Your task to perform on an android device: toggle notifications settings in the gmail app Image 0: 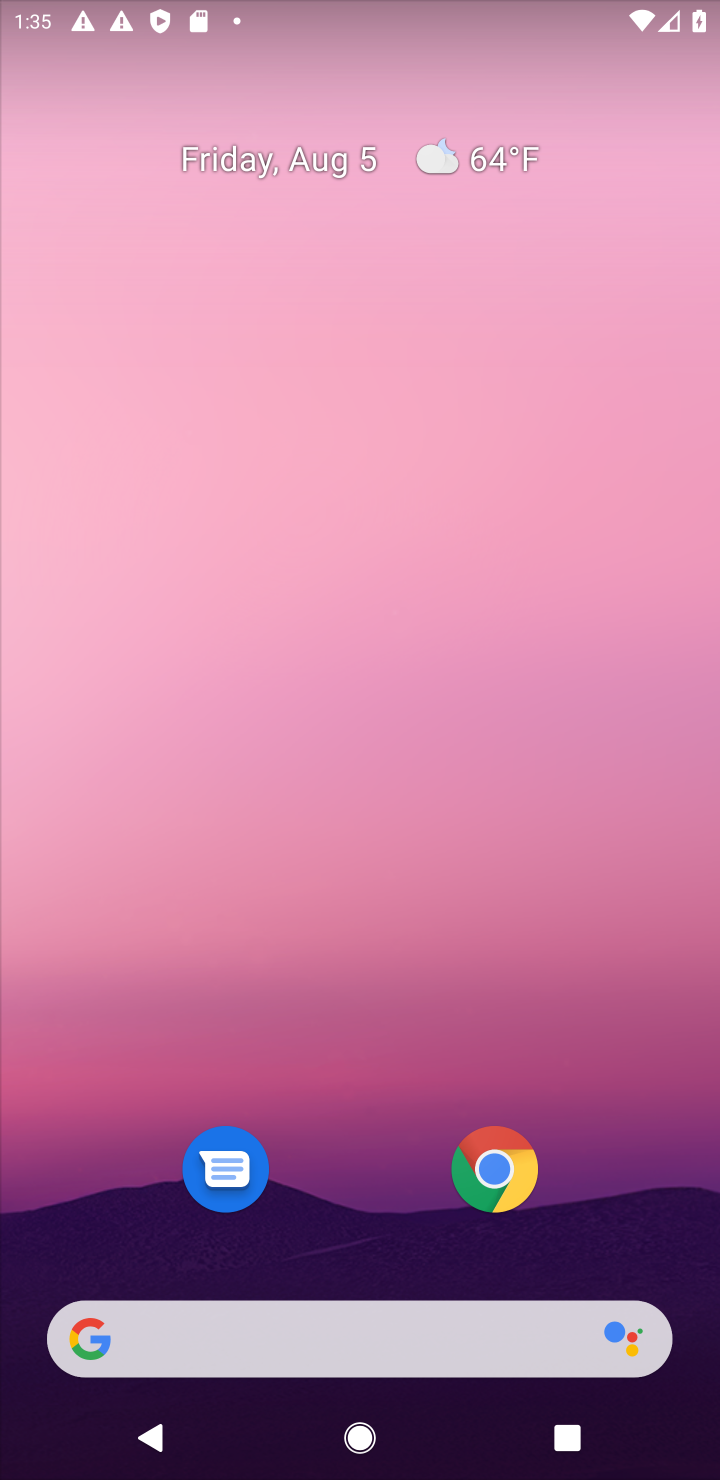
Step 0: drag from (330, 1139) to (367, 266)
Your task to perform on an android device: toggle notifications settings in the gmail app Image 1: 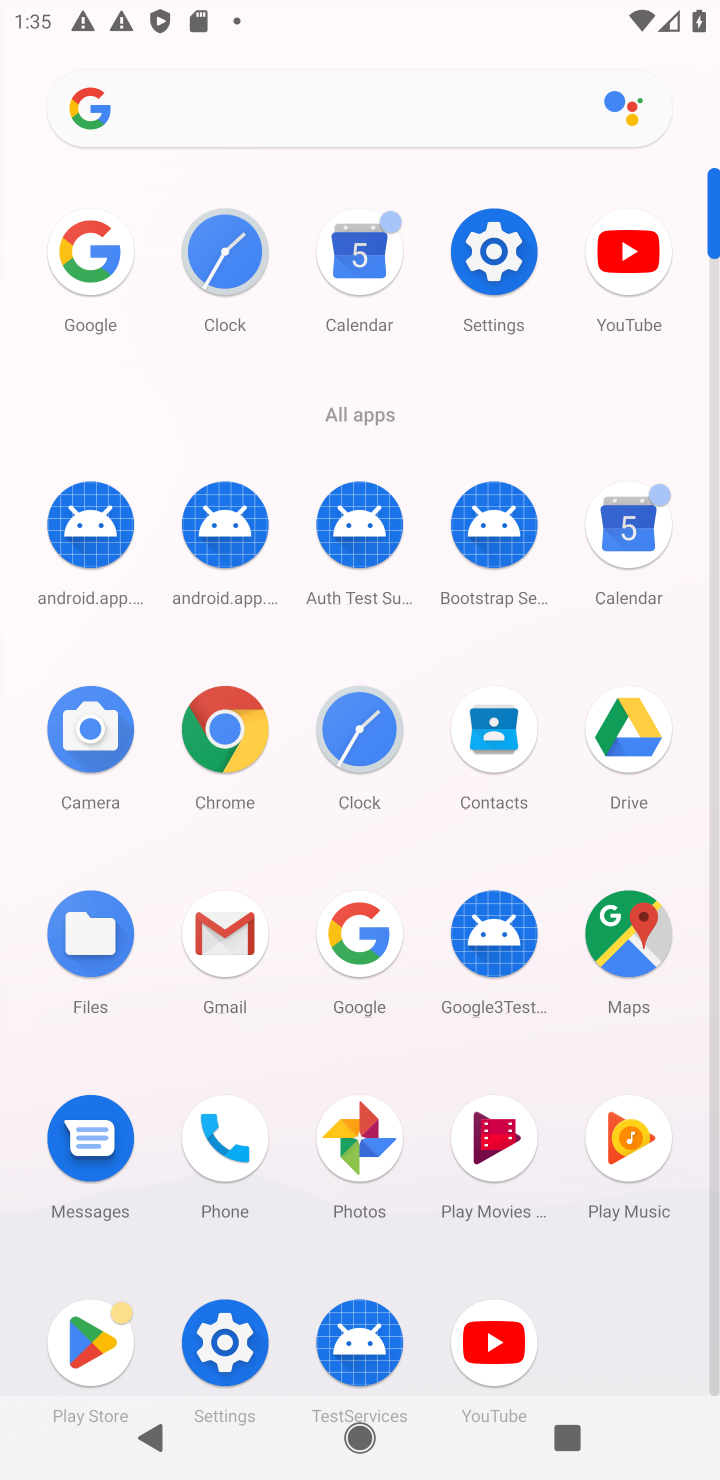
Step 1: click (235, 929)
Your task to perform on an android device: toggle notifications settings in the gmail app Image 2: 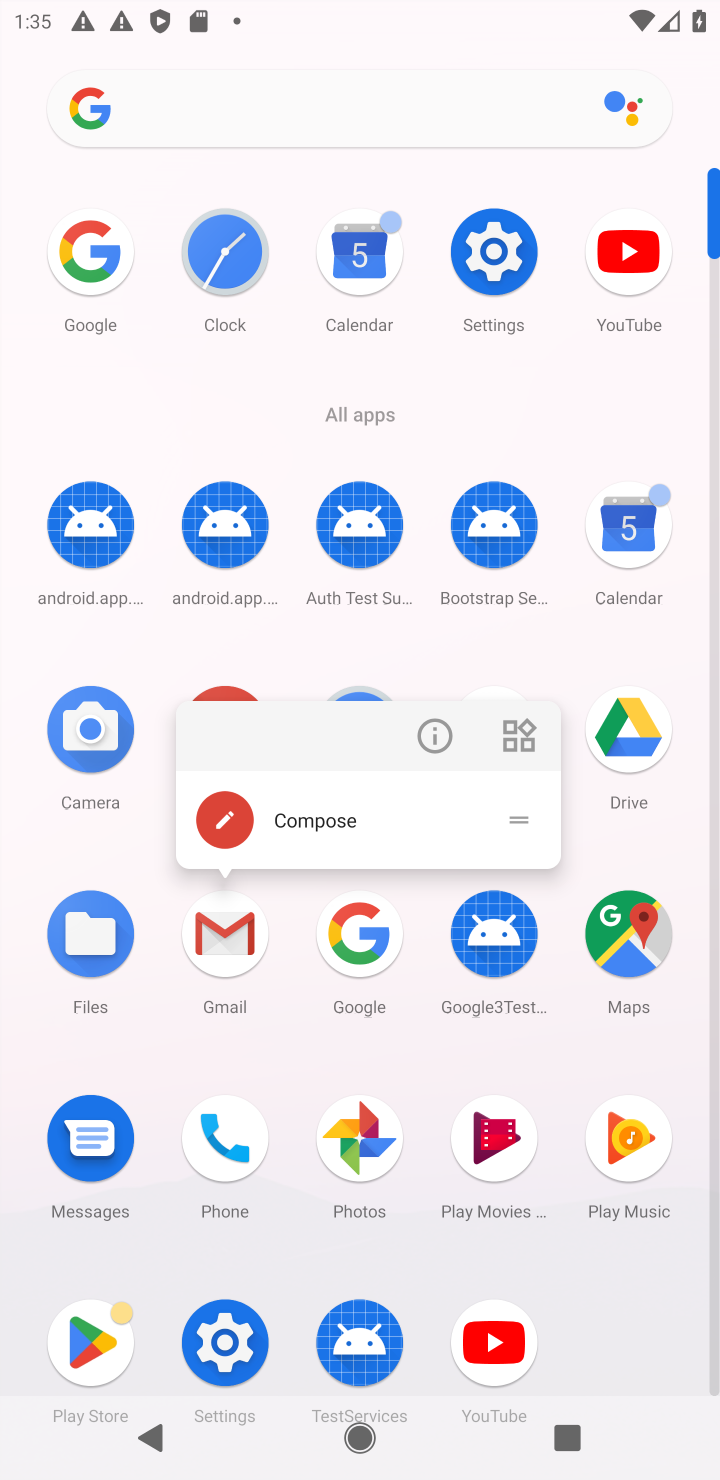
Step 2: click (210, 960)
Your task to perform on an android device: toggle notifications settings in the gmail app Image 3: 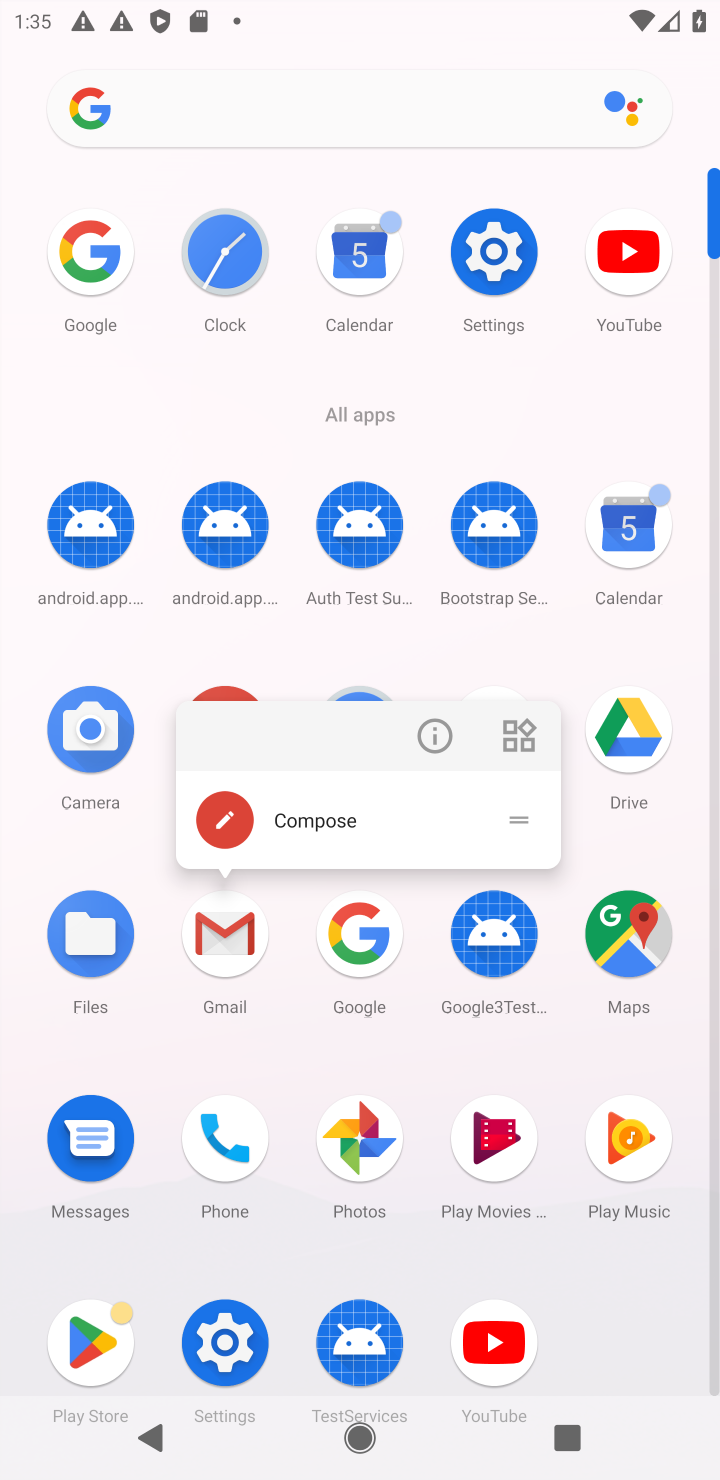
Step 3: click (210, 960)
Your task to perform on an android device: toggle notifications settings in the gmail app Image 4: 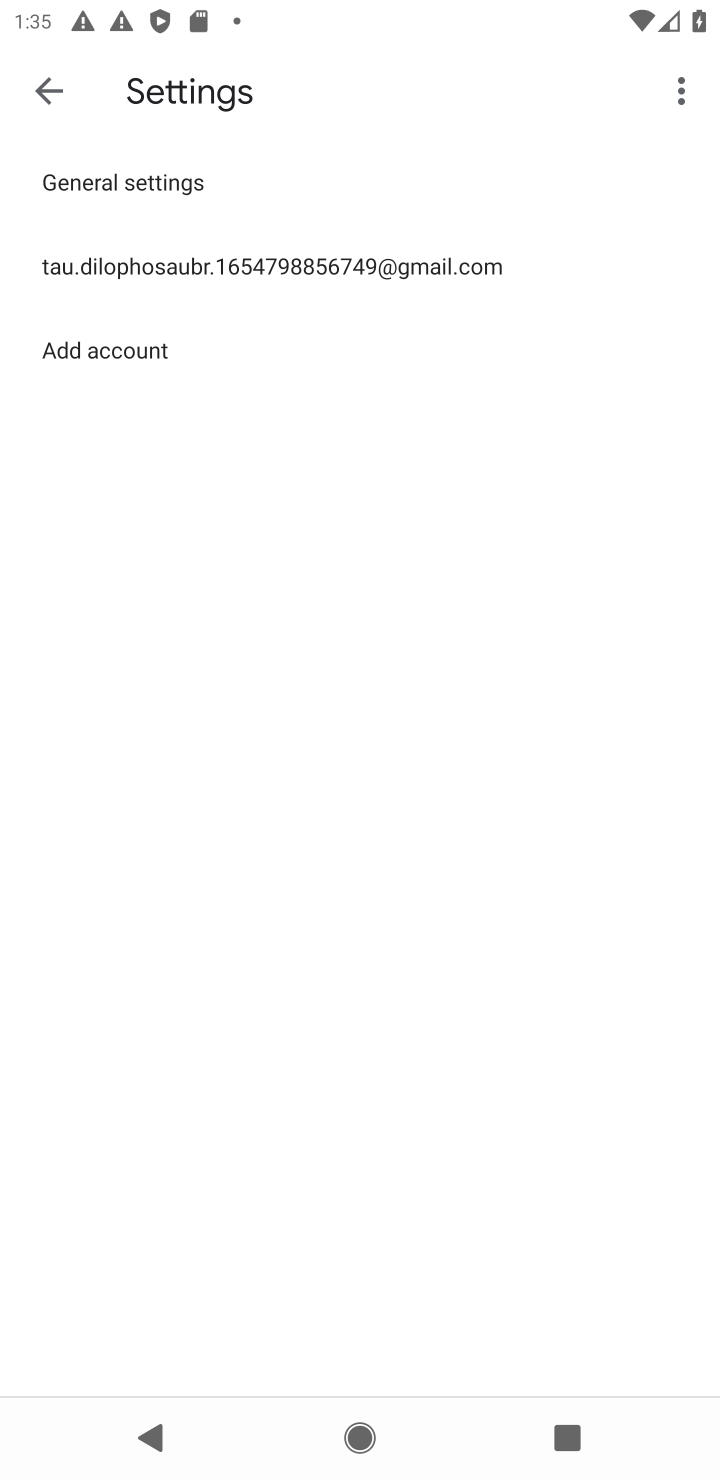
Step 4: click (286, 261)
Your task to perform on an android device: toggle notifications settings in the gmail app Image 5: 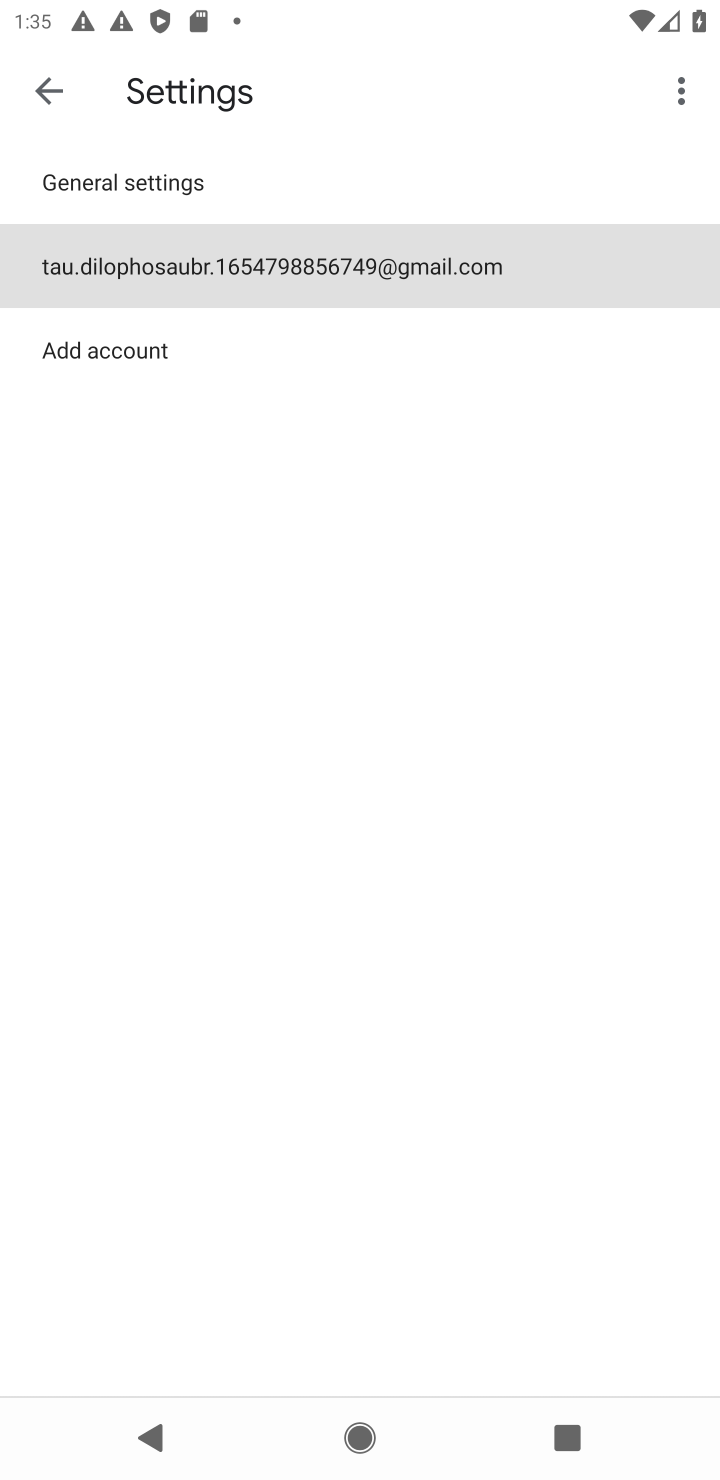
Step 5: click (286, 261)
Your task to perform on an android device: toggle notifications settings in the gmail app Image 6: 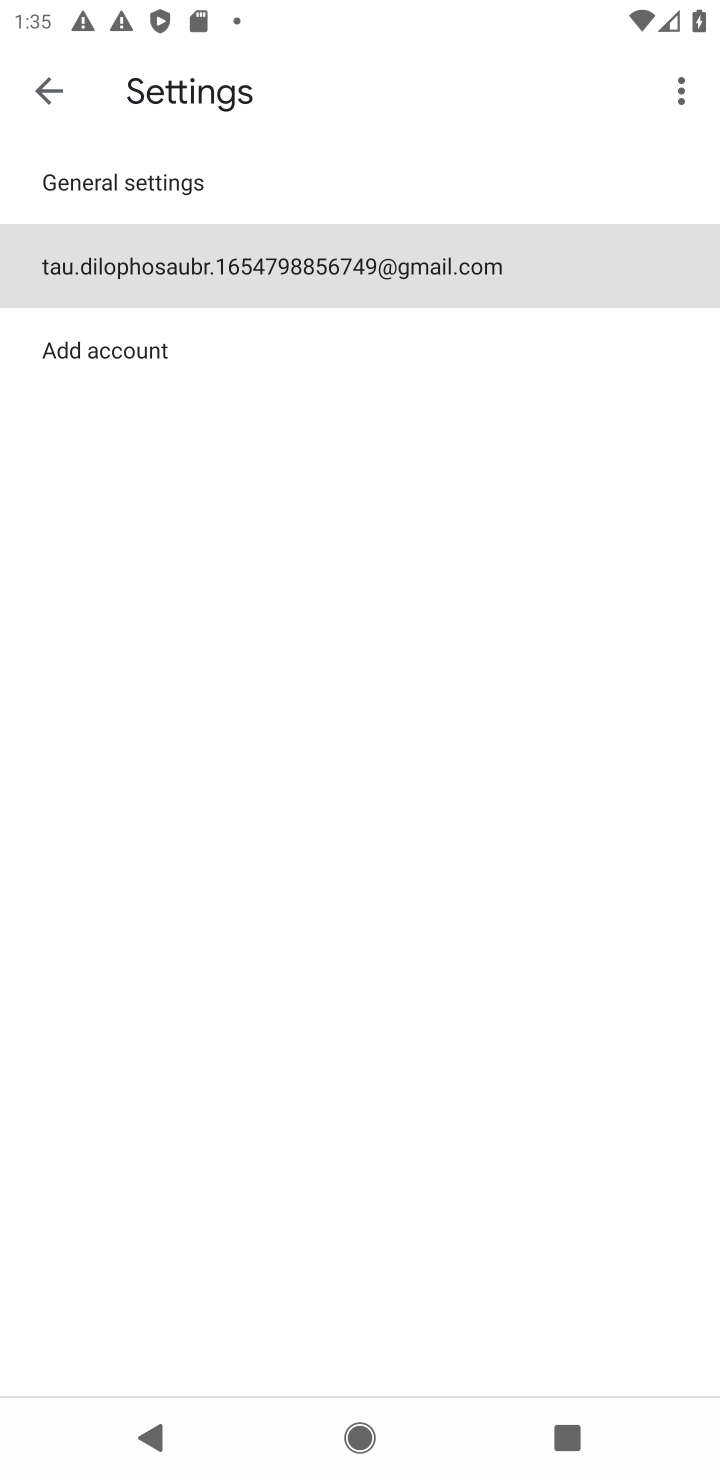
Step 6: click (286, 261)
Your task to perform on an android device: toggle notifications settings in the gmail app Image 7: 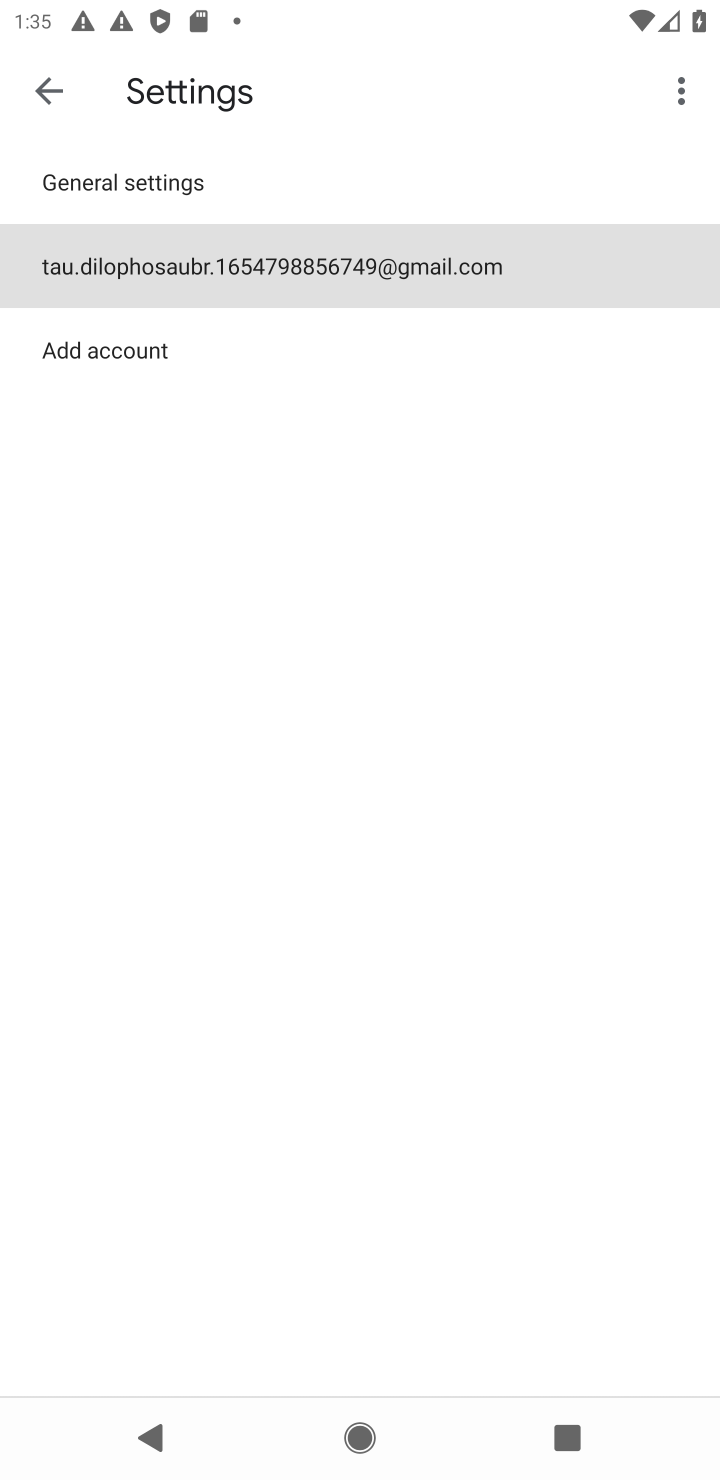
Step 7: click (286, 261)
Your task to perform on an android device: toggle notifications settings in the gmail app Image 8: 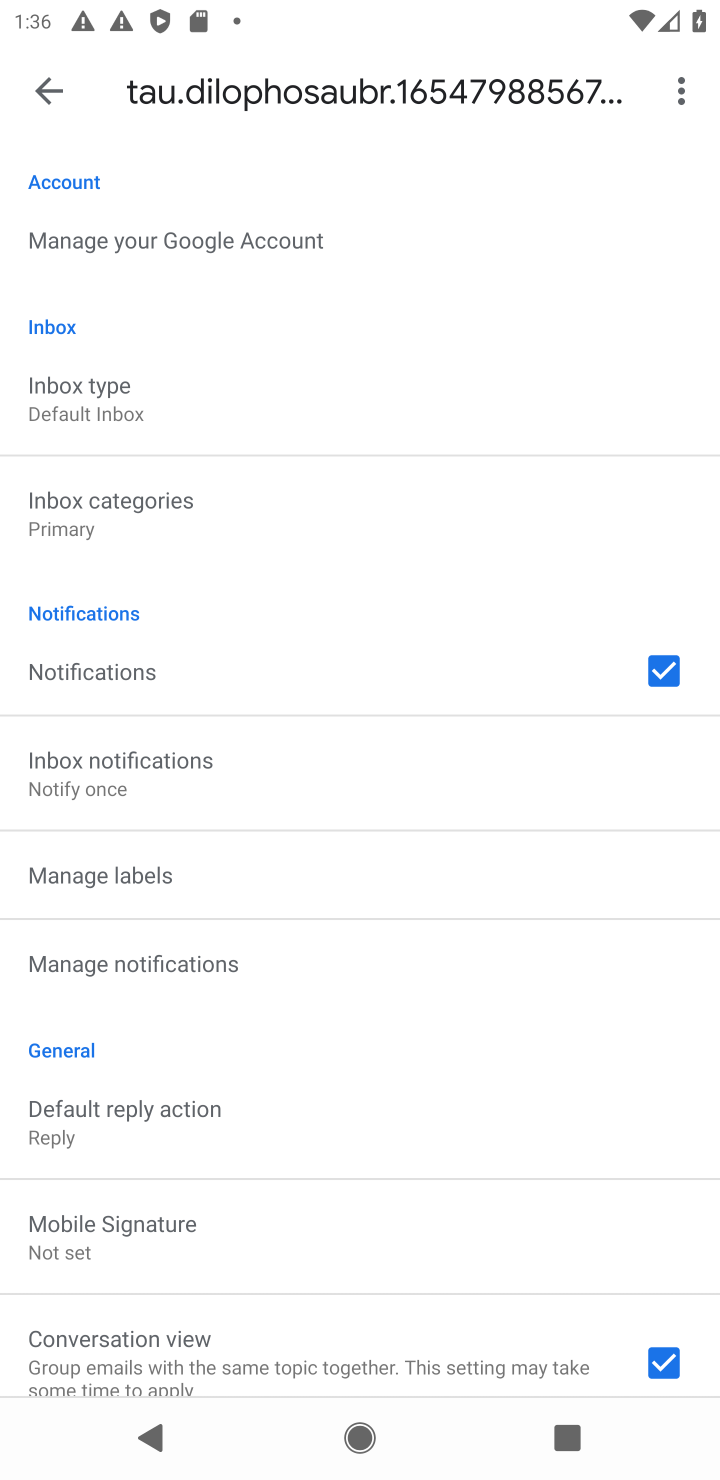
Step 8: click (172, 968)
Your task to perform on an android device: toggle notifications settings in the gmail app Image 9: 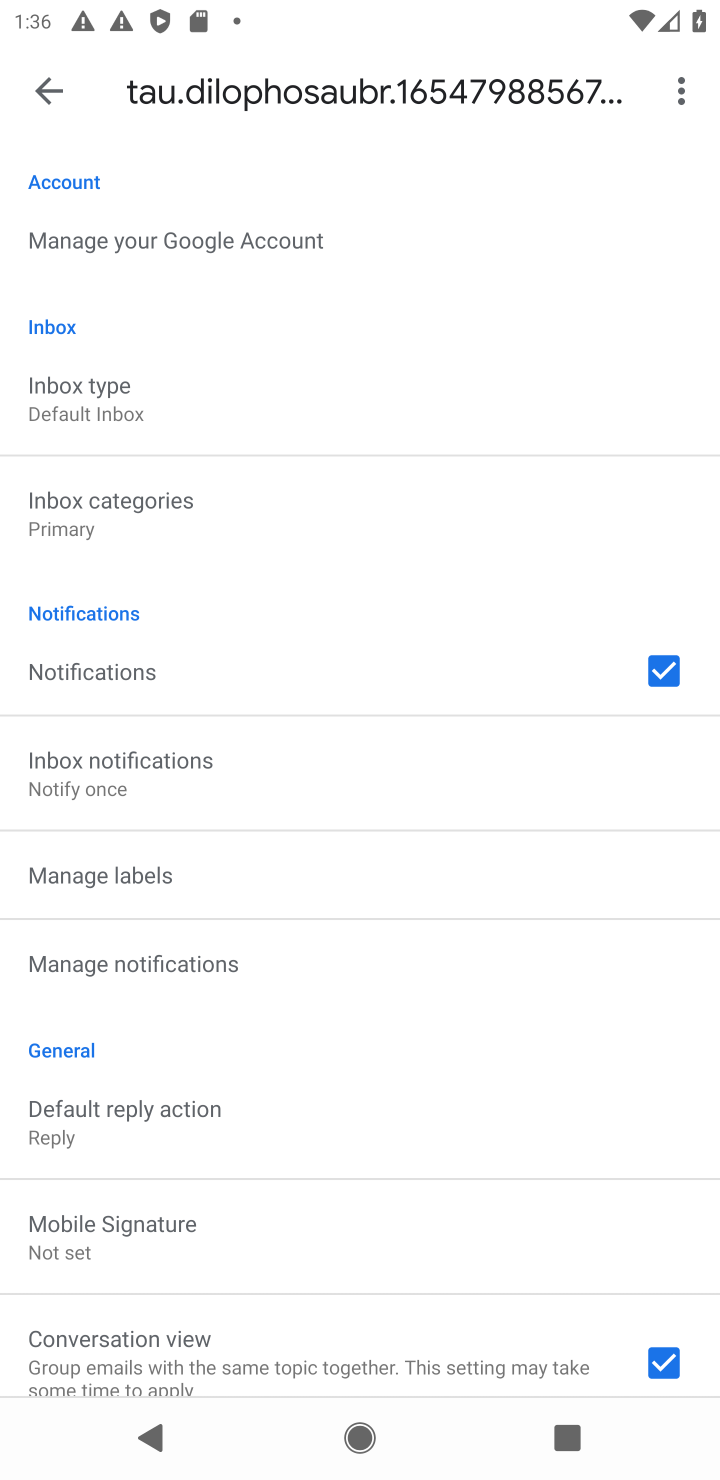
Step 9: task complete